Your task to perform on an android device: Open Google Chrome and click the shortcut for Amazon.com Image 0: 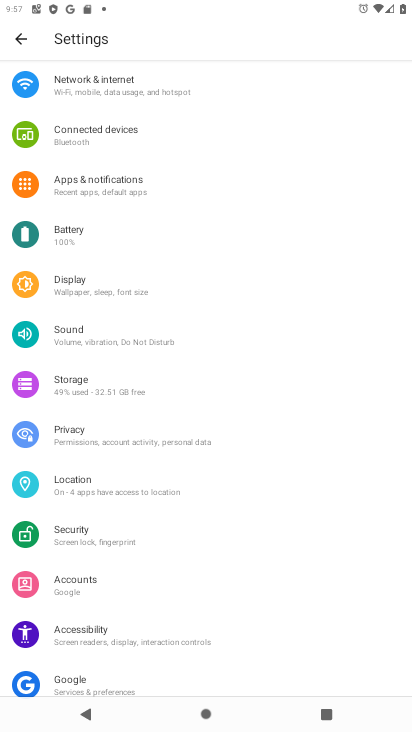
Step 0: press home button
Your task to perform on an android device: Open Google Chrome and click the shortcut for Amazon.com Image 1: 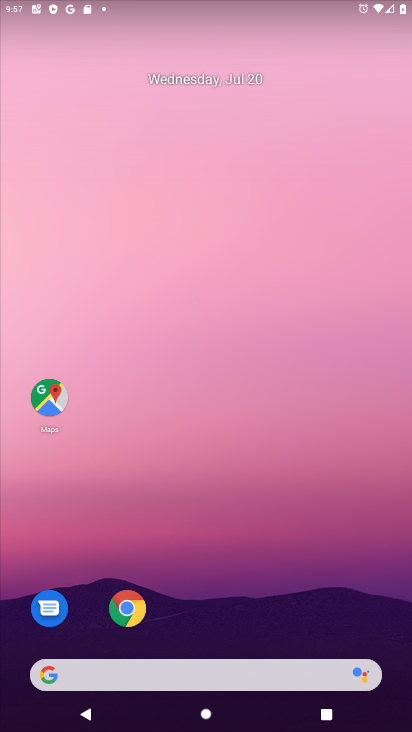
Step 1: click (117, 605)
Your task to perform on an android device: Open Google Chrome and click the shortcut for Amazon.com Image 2: 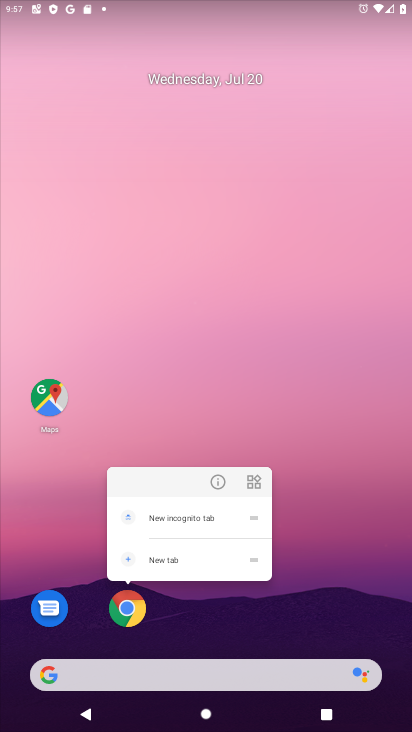
Step 2: click (130, 605)
Your task to perform on an android device: Open Google Chrome and click the shortcut for Amazon.com Image 3: 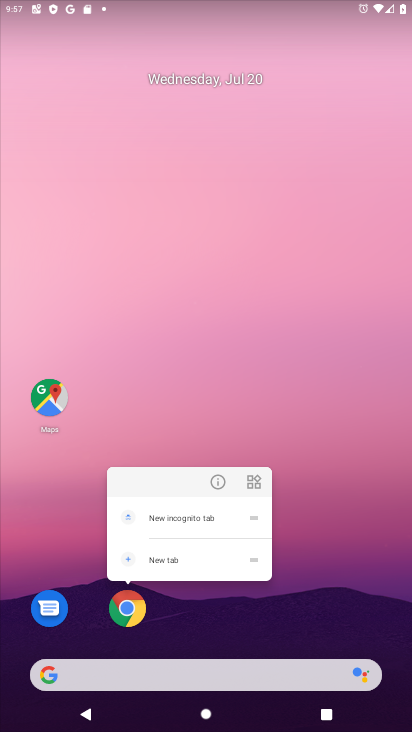
Step 3: click (124, 603)
Your task to perform on an android device: Open Google Chrome and click the shortcut for Amazon.com Image 4: 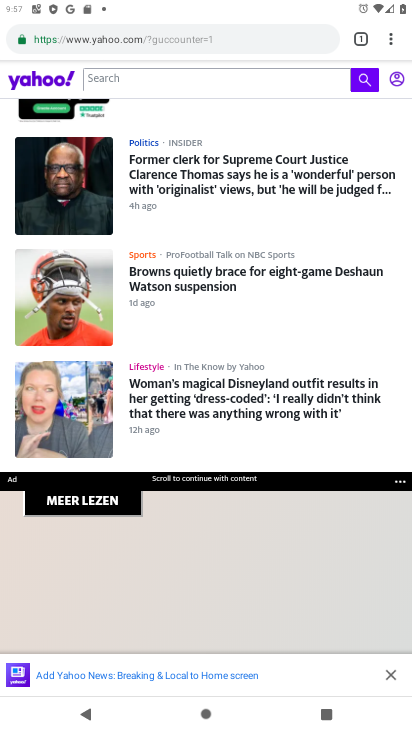
Step 4: click (362, 35)
Your task to perform on an android device: Open Google Chrome and click the shortcut for Amazon.com Image 5: 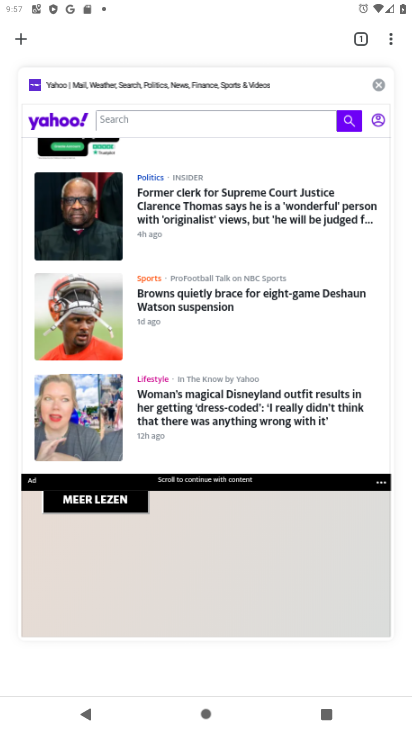
Step 5: click (26, 34)
Your task to perform on an android device: Open Google Chrome and click the shortcut for Amazon.com Image 6: 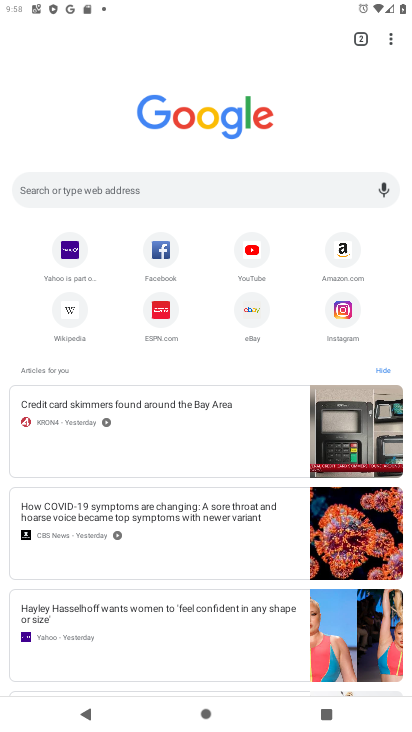
Step 6: click (347, 252)
Your task to perform on an android device: Open Google Chrome and click the shortcut for Amazon.com Image 7: 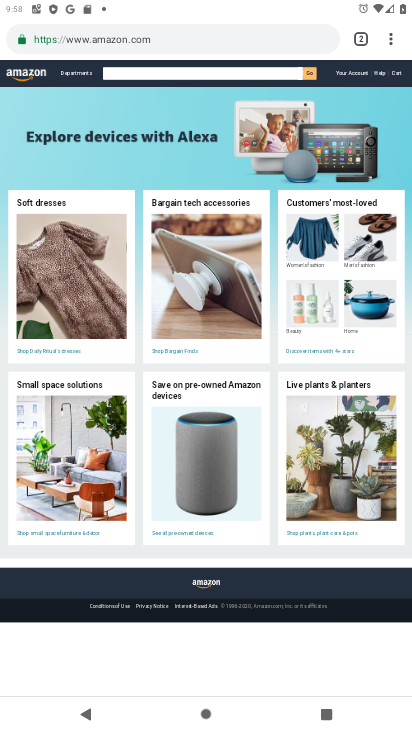
Step 7: task complete